Your task to perform on an android device: Check the new Jordans on Nike. Image 0: 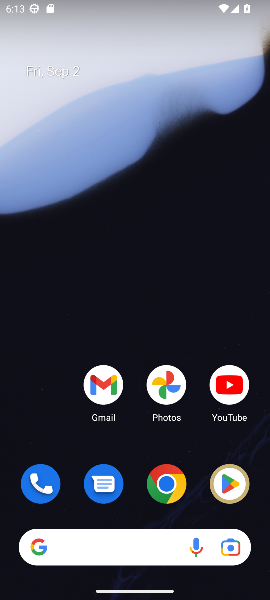
Step 0: click (161, 490)
Your task to perform on an android device: Check the new Jordans on Nike. Image 1: 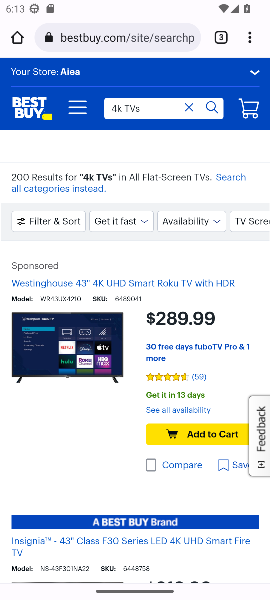
Step 1: click (140, 39)
Your task to perform on an android device: Check the new Jordans on Nike. Image 2: 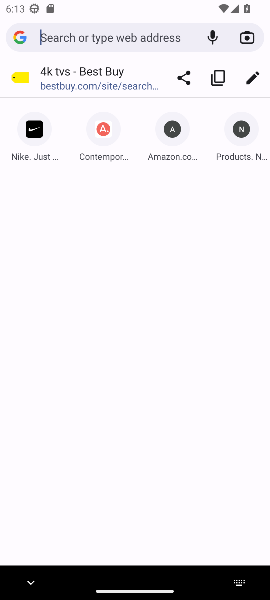
Step 2: type " Nike"
Your task to perform on an android device: Check the new Jordans on Nike. Image 3: 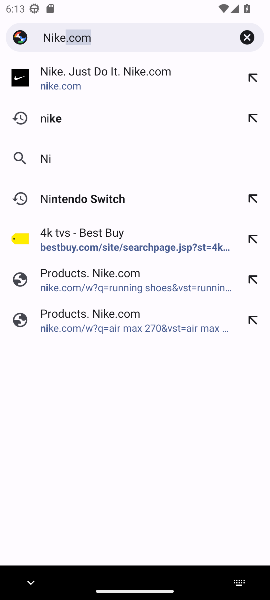
Step 3: press enter
Your task to perform on an android device: Check the new Jordans on Nike. Image 4: 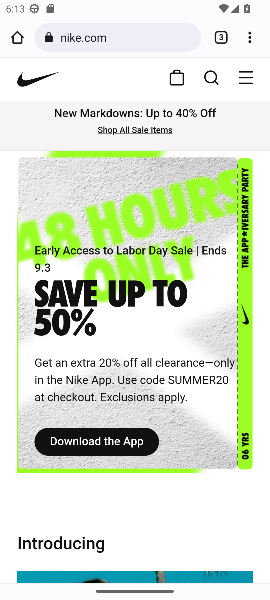
Step 4: click (216, 73)
Your task to perform on an android device: Check the new Jordans on Nike. Image 5: 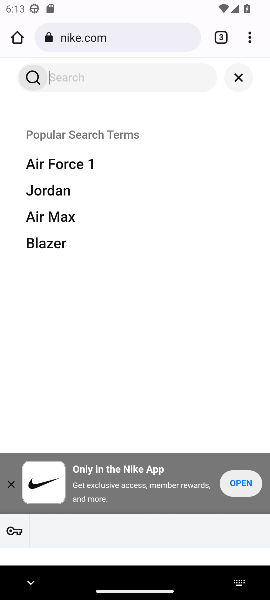
Step 5: type " Jordans"
Your task to perform on an android device: Check the new Jordans on Nike. Image 6: 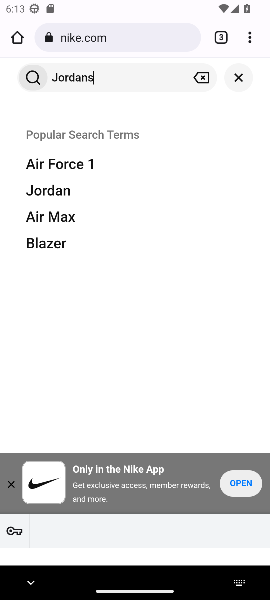
Step 6: press enter
Your task to perform on an android device: Check the new Jordans on Nike. Image 7: 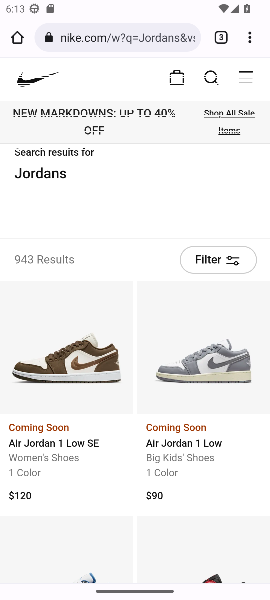
Step 7: task complete